Your task to perform on an android device: Search for seafood restaurants on Google Maps Image 0: 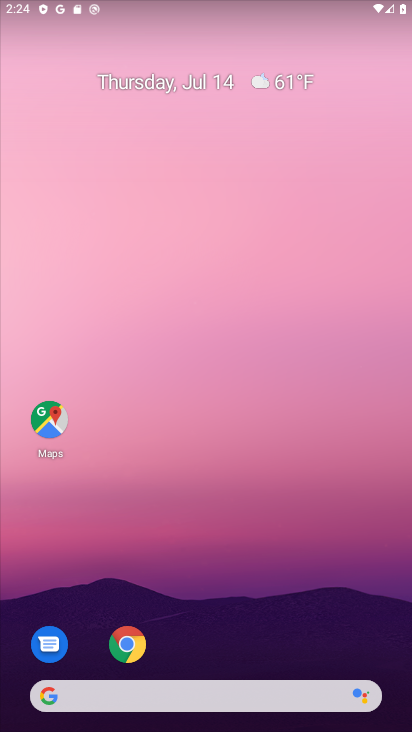
Step 0: drag from (248, 637) to (190, 212)
Your task to perform on an android device: Search for seafood restaurants on Google Maps Image 1: 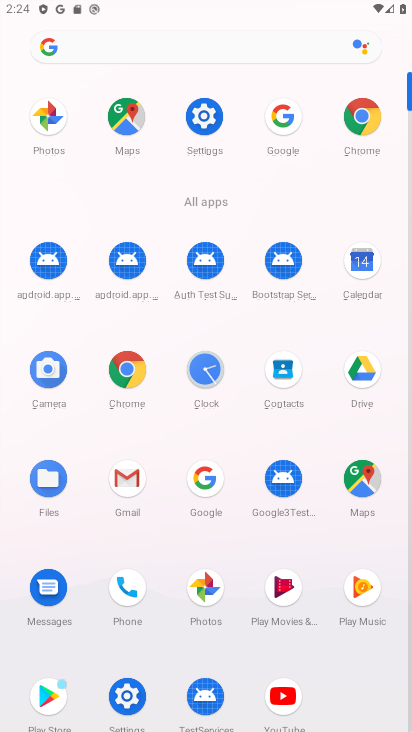
Step 1: click (347, 474)
Your task to perform on an android device: Search for seafood restaurants on Google Maps Image 2: 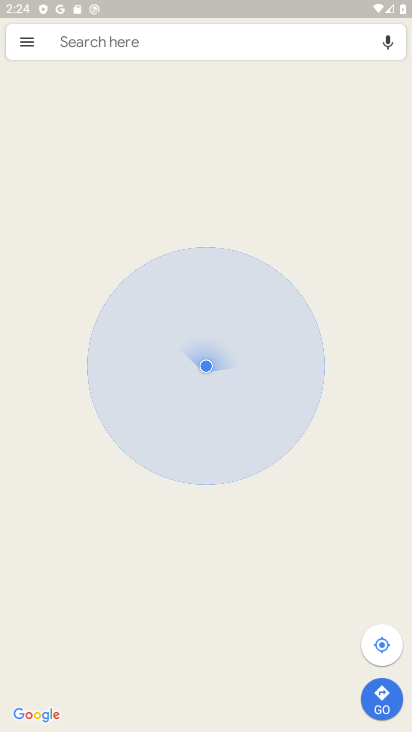
Step 2: click (143, 45)
Your task to perform on an android device: Search for seafood restaurants on Google Maps Image 3: 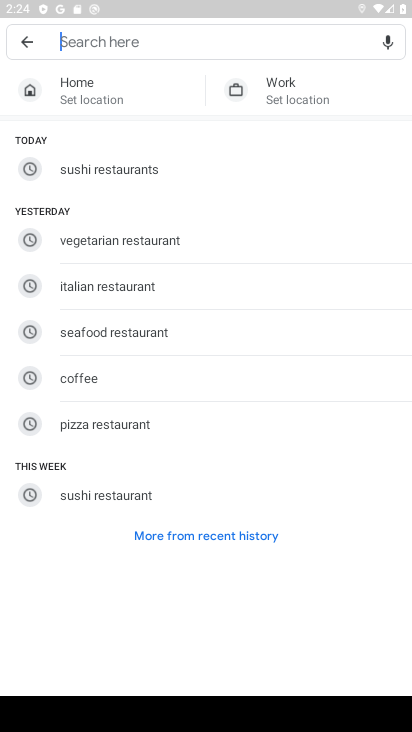
Step 3: click (195, 337)
Your task to perform on an android device: Search for seafood restaurants on Google Maps Image 4: 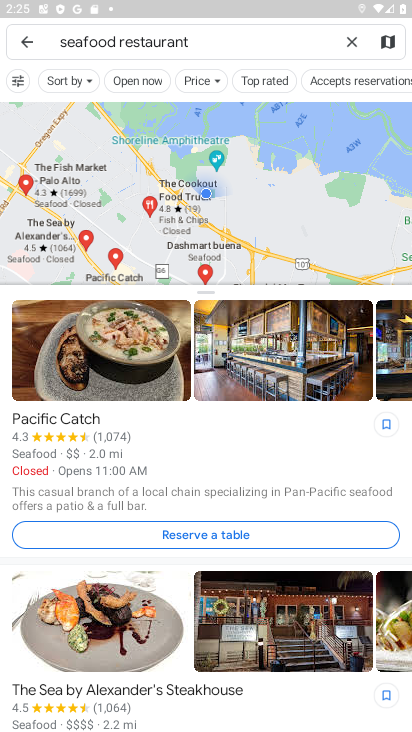
Step 4: task complete